Your task to perform on an android device: Go to Google Image 0: 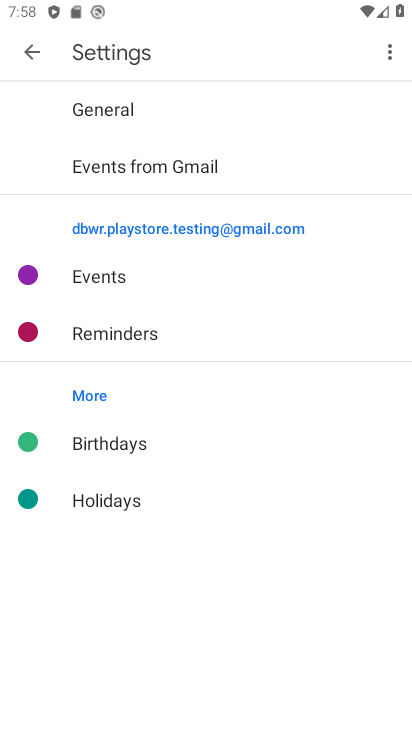
Step 0: press home button
Your task to perform on an android device: Go to Google Image 1: 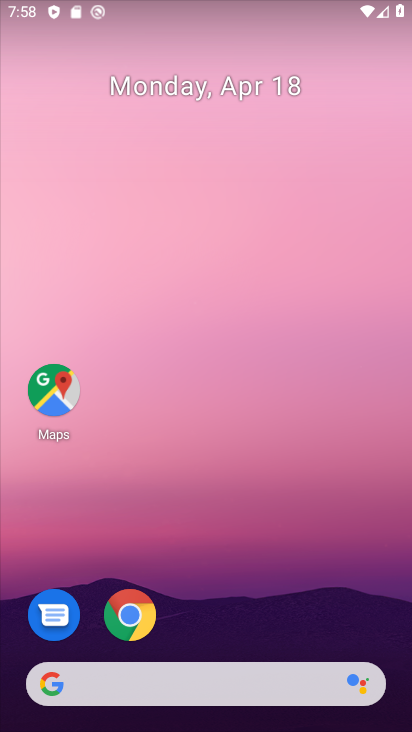
Step 1: click (238, 684)
Your task to perform on an android device: Go to Google Image 2: 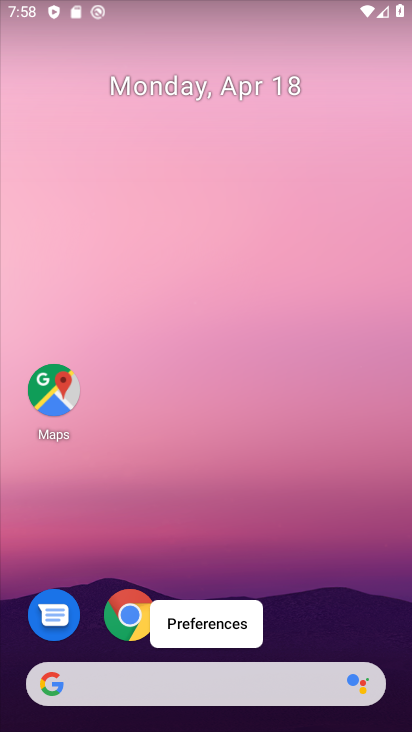
Step 2: click (194, 692)
Your task to perform on an android device: Go to Google Image 3: 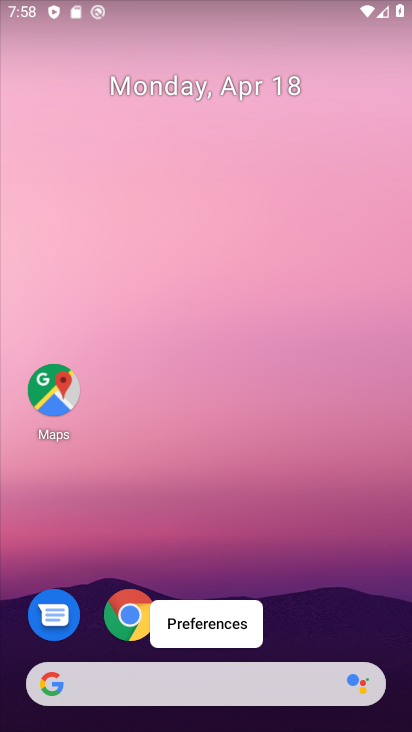
Step 3: click (51, 683)
Your task to perform on an android device: Go to Google Image 4: 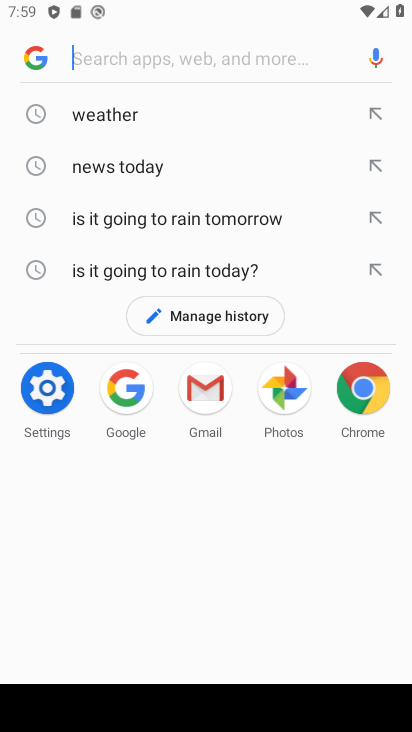
Step 4: task complete